Your task to perform on an android device: Find coffee shops on Maps Image 0: 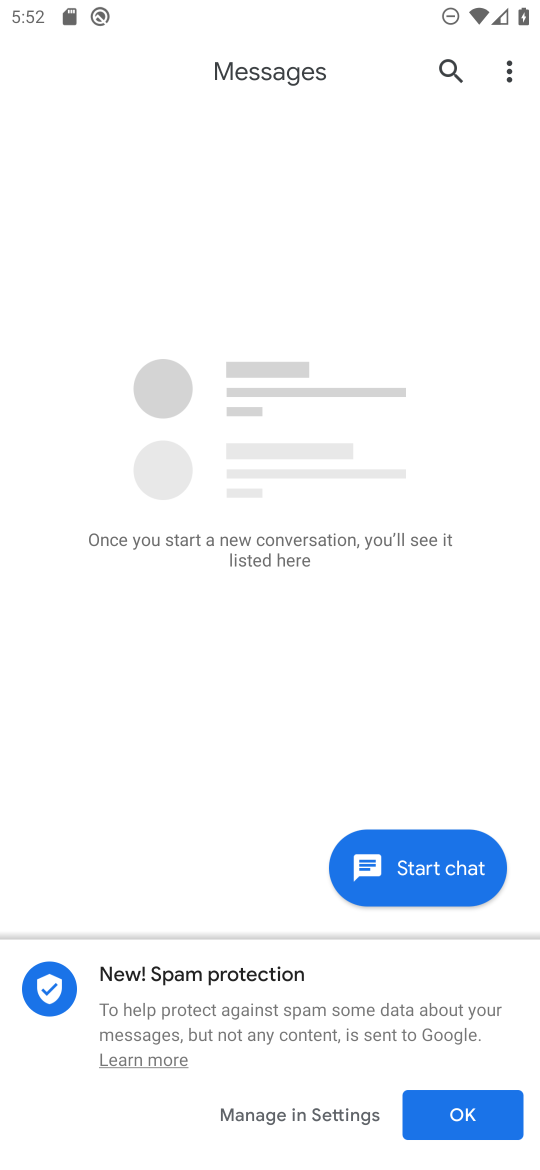
Step 0: press home button
Your task to perform on an android device: Find coffee shops on Maps Image 1: 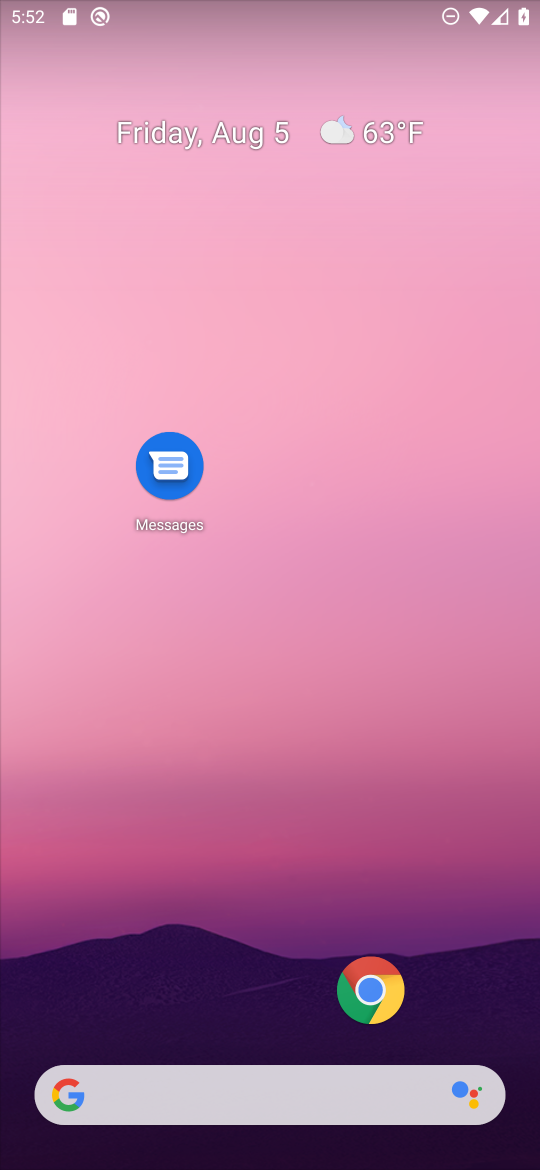
Step 1: drag from (270, 1075) to (247, 349)
Your task to perform on an android device: Find coffee shops on Maps Image 2: 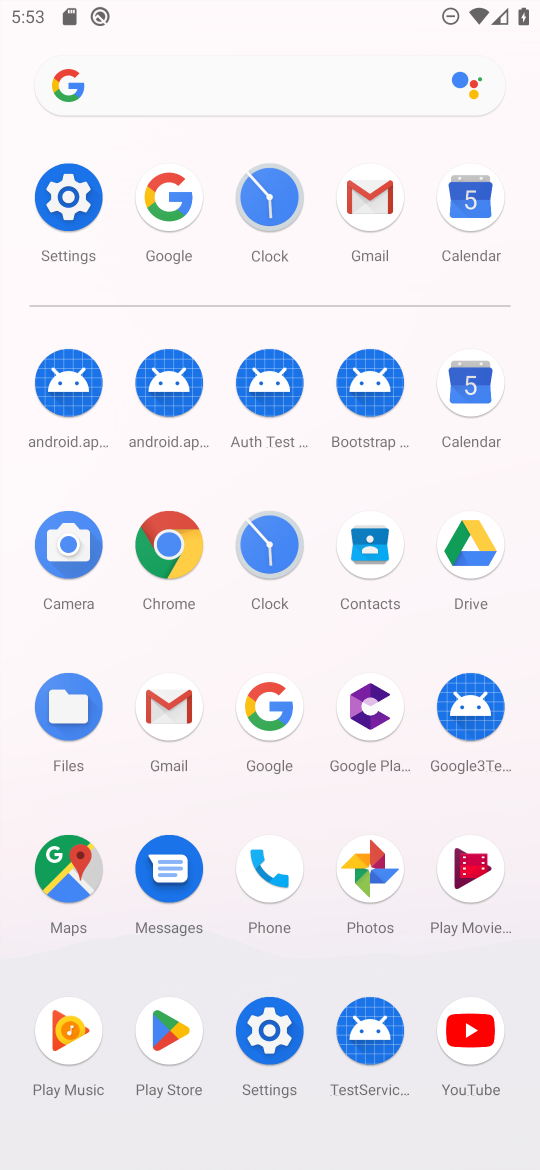
Step 2: click (72, 863)
Your task to perform on an android device: Find coffee shops on Maps Image 3: 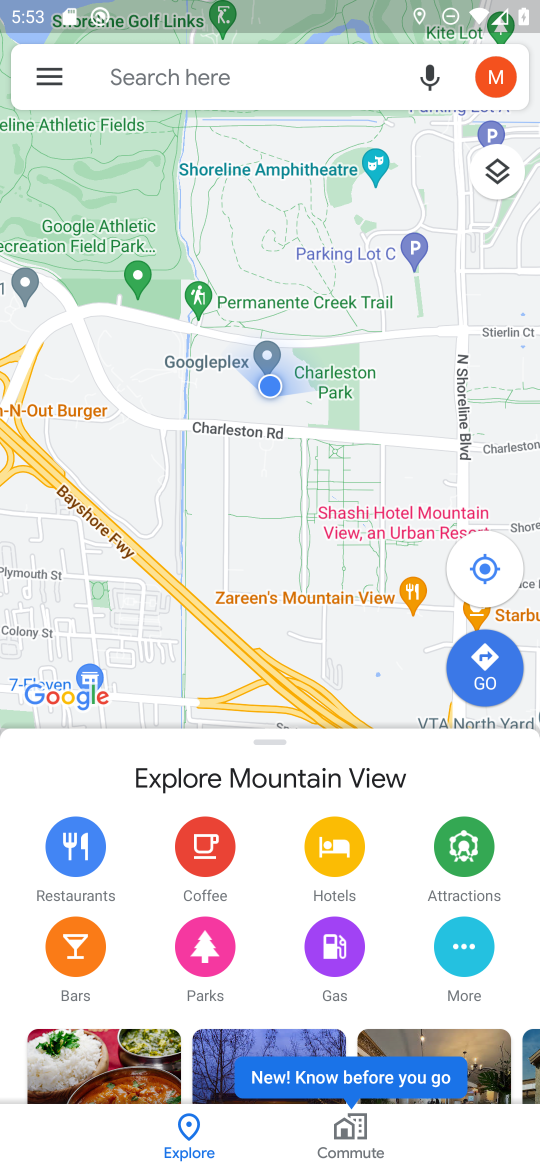
Step 3: click (162, 55)
Your task to perform on an android device: Find coffee shops on Maps Image 4: 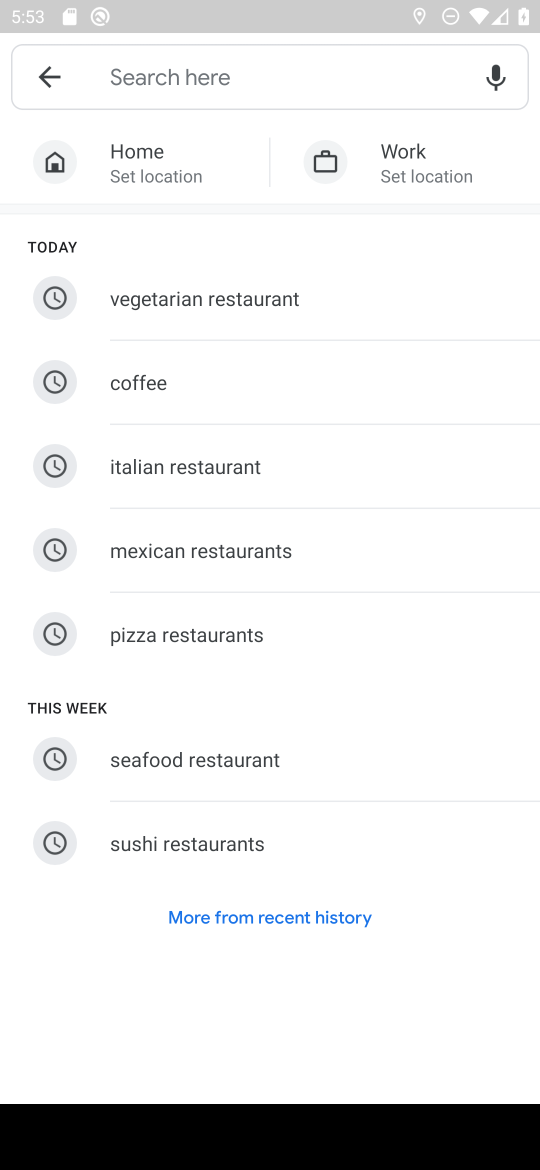
Step 4: click (169, 383)
Your task to perform on an android device: Find coffee shops on Maps Image 5: 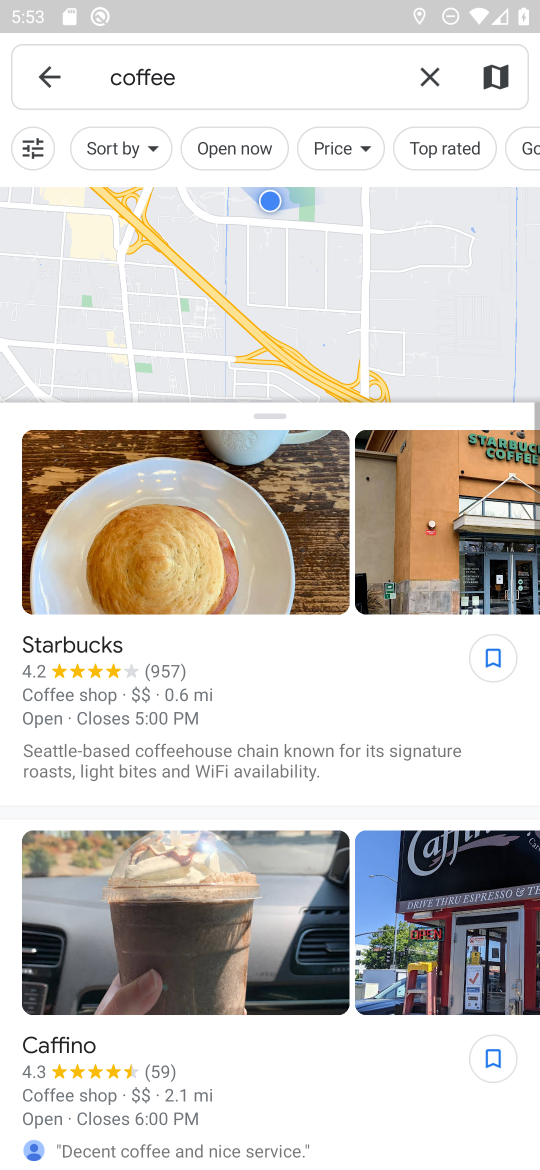
Step 5: task complete